Your task to perform on an android device: all mails in gmail Image 0: 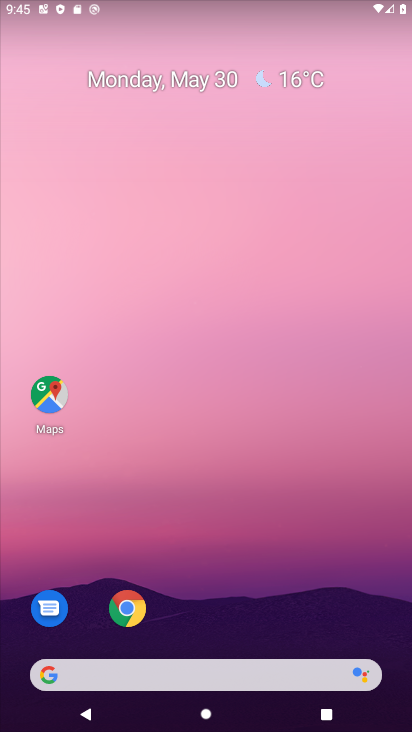
Step 0: drag from (398, 650) to (389, 112)
Your task to perform on an android device: all mails in gmail Image 1: 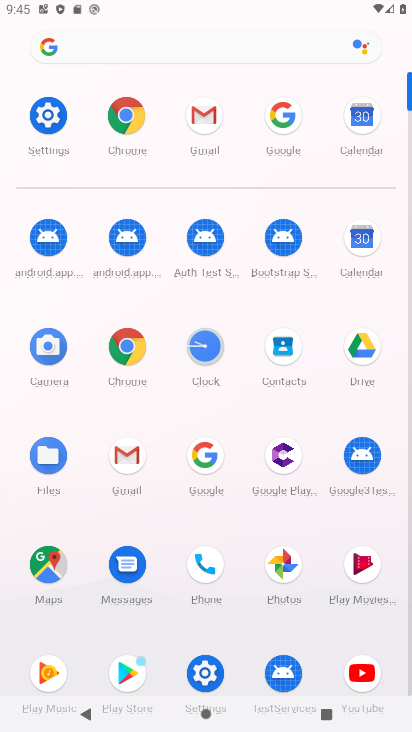
Step 1: click (127, 454)
Your task to perform on an android device: all mails in gmail Image 2: 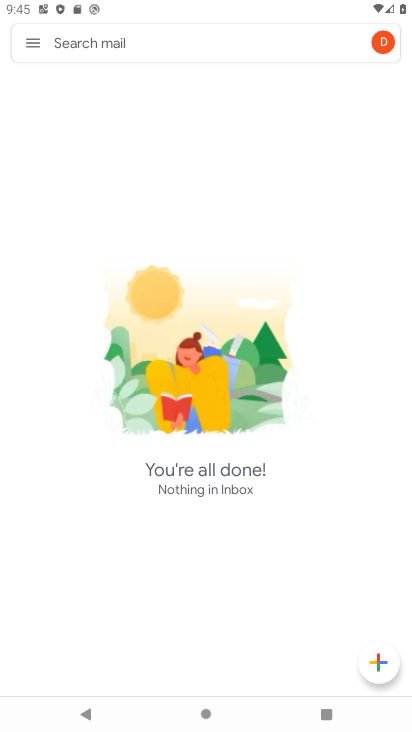
Step 2: click (36, 38)
Your task to perform on an android device: all mails in gmail Image 3: 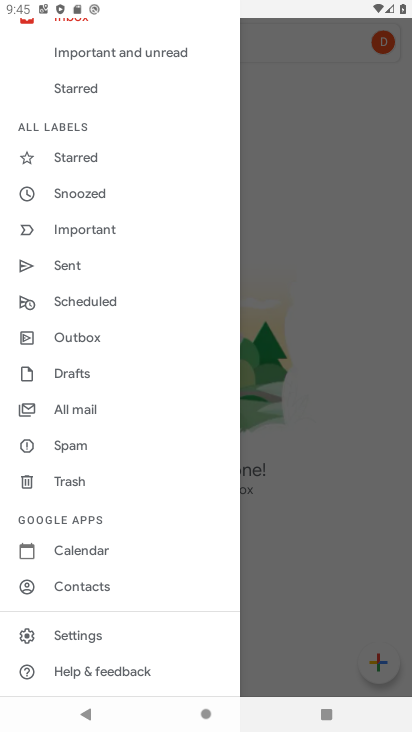
Step 3: click (75, 410)
Your task to perform on an android device: all mails in gmail Image 4: 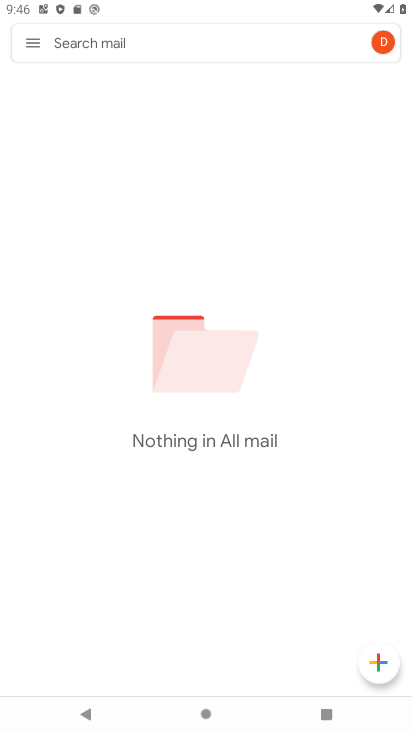
Step 4: click (36, 40)
Your task to perform on an android device: all mails in gmail Image 5: 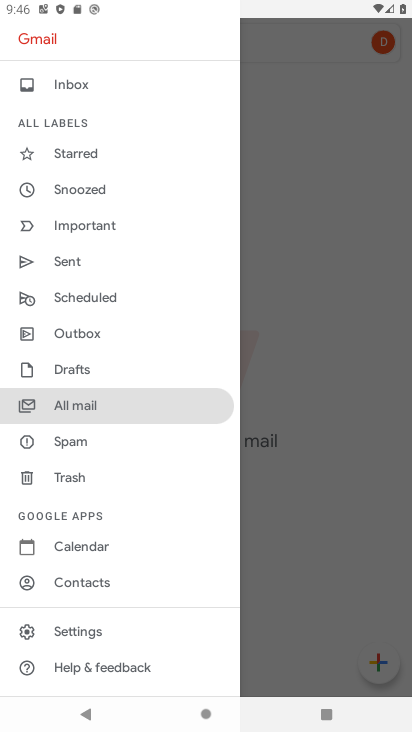
Step 5: click (111, 402)
Your task to perform on an android device: all mails in gmail Image 6: 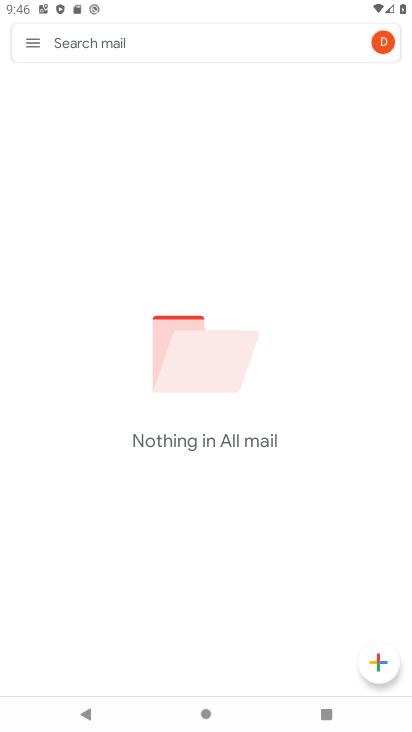
Step 6: task complete